Your task to perform on an android device: Open Youtube and go to "Your channel" Image 0: 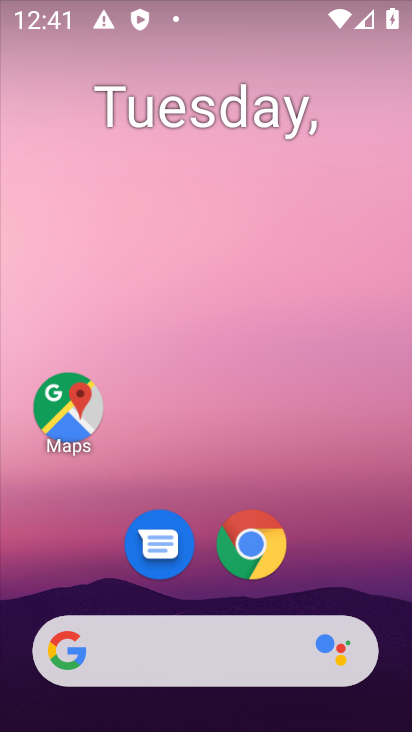
Step 0: drag from (370, 550) to (164, 22)
Your task to perform on an android device: Open Youtube and go to "Your channel" Image 1: 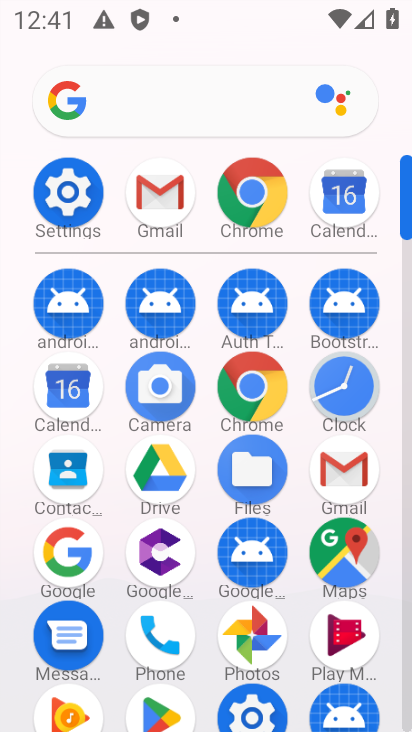
Step 1: drag from (291, 593) to (276, 189)
Your task to perform on an android device: Open Youtube and go to "Your channel" Image 2: 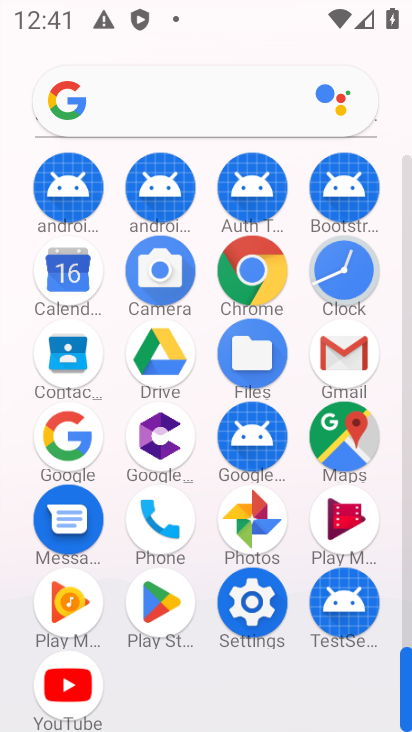
Step 2: click (70, 680)
Your task to perform on an android device: Open Youtube and go to "Your channel" Image 3: 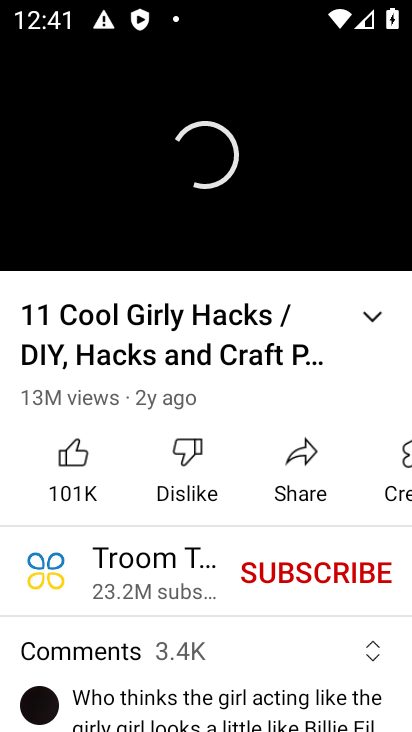
Step 3: click (197, 153)
Your task to perform on an android device: Open Youtube and go to "Your channel" Image 4: 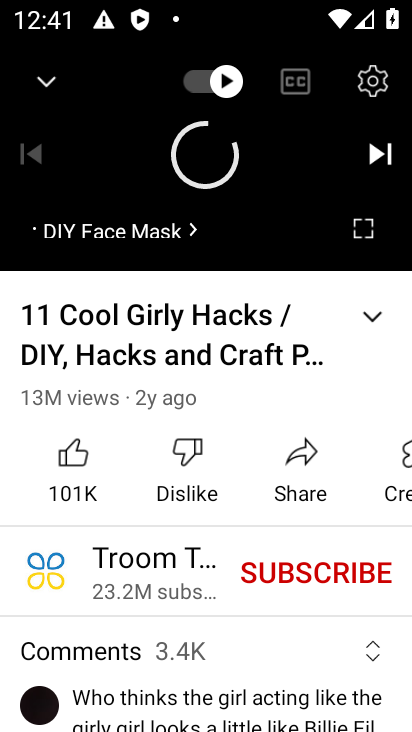
Step 4: click (217, 143)
Your task to perform on an android device: Open Youtube and go to "Your channel" Image 5: 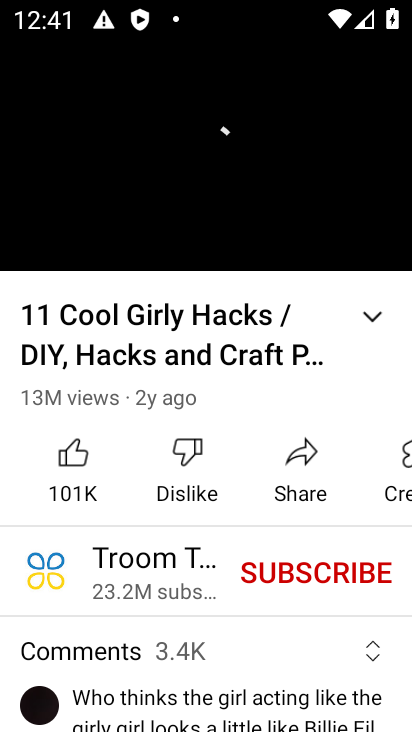
Step 5: click (204, 135)
Your task to perform on an android device: Open Youtube and go to "Your channel" Image 6: 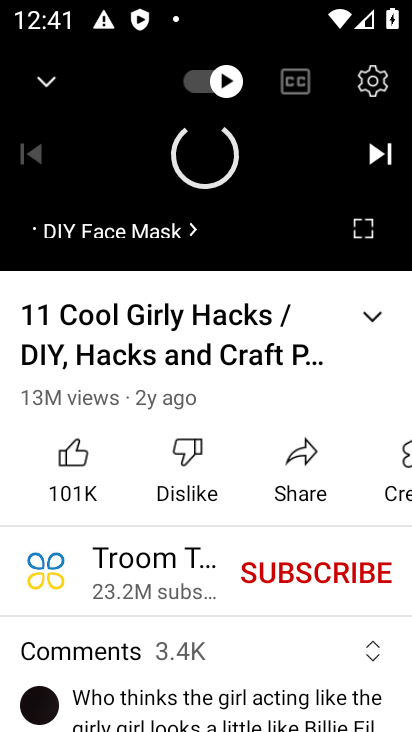
Step 6: click (50, 74)
Your task to perform on an android device: Open Youtube and go to "Your channel" Image 7: 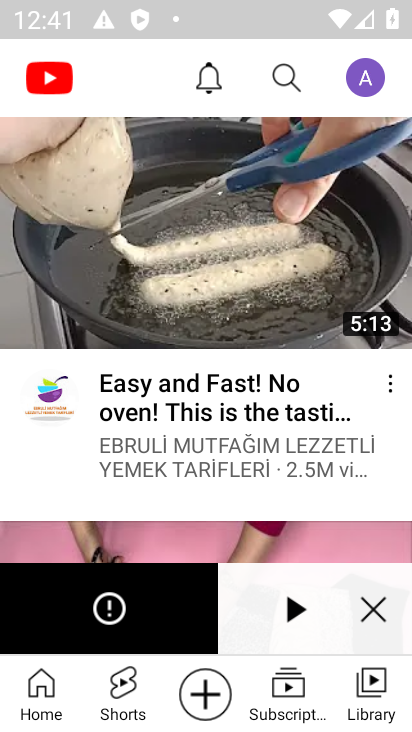
Step 7: click (390, 708)
Your task to perform on an android device: Open Youtube and go to "Your channel" Image 8: 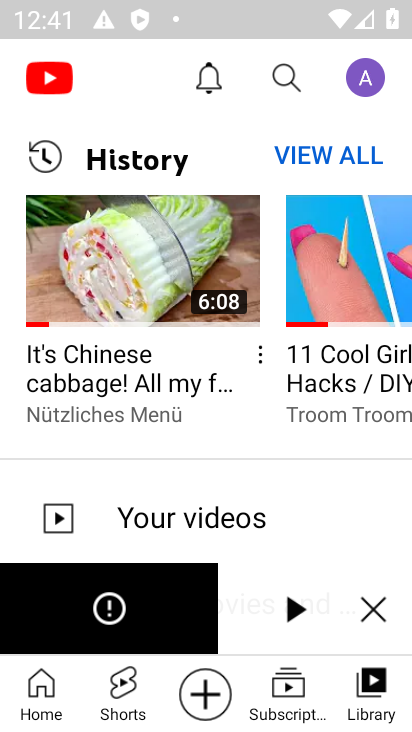
Step 8: click (174, 248)
Your task to perform on an android device: Open Youtube and go to "Your channel" Image 9: 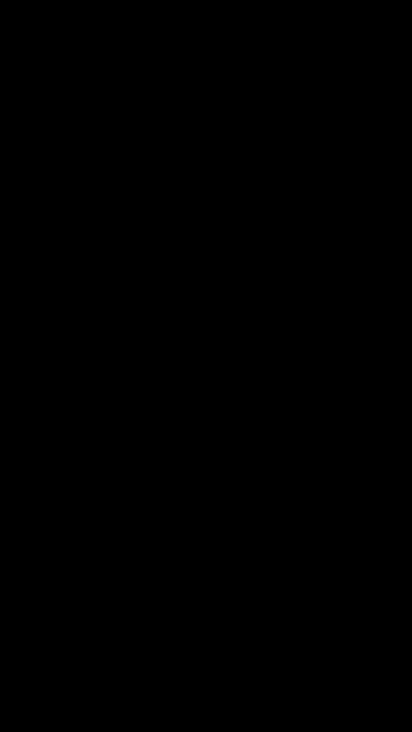
Step 9: task complete